Your task to perform on an android device: What is the news today? Image 0: 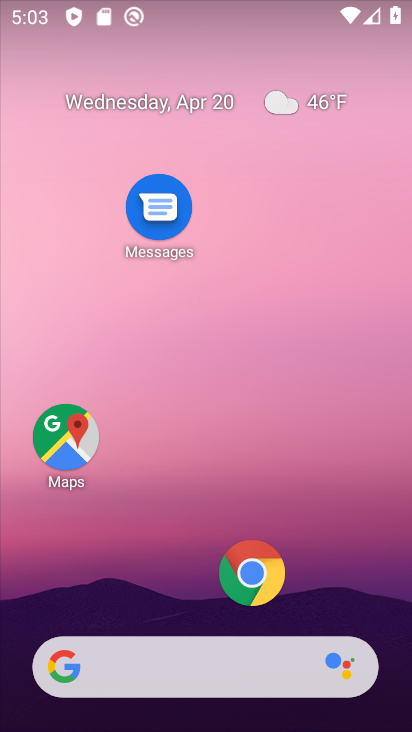
Step 0: drag from (198, 521) to (201, 133)
Your task to perform on an android device: What is the news today? Image 1: 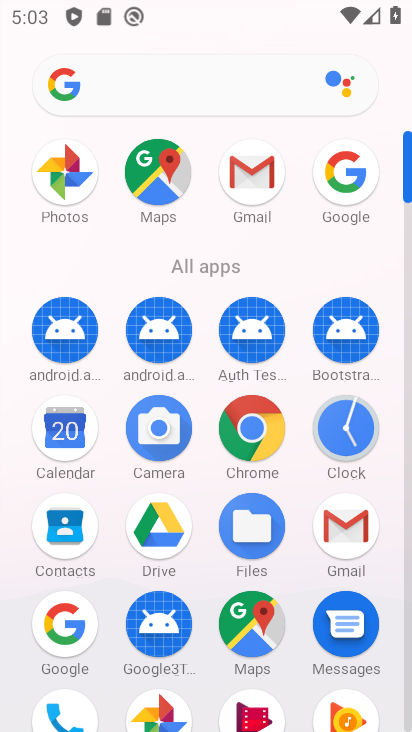
Step 1: click (329, 169)
Your task to perform on an android device: What is the news today? Image 2: 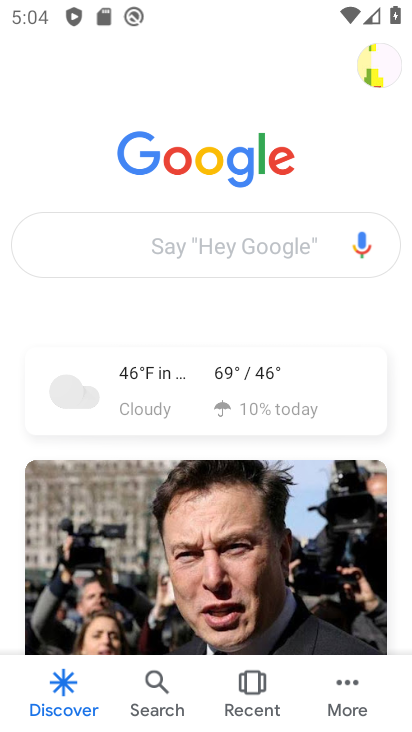
Step 2: task complete